Your task to perform on an android device: Open network settings Image 0: 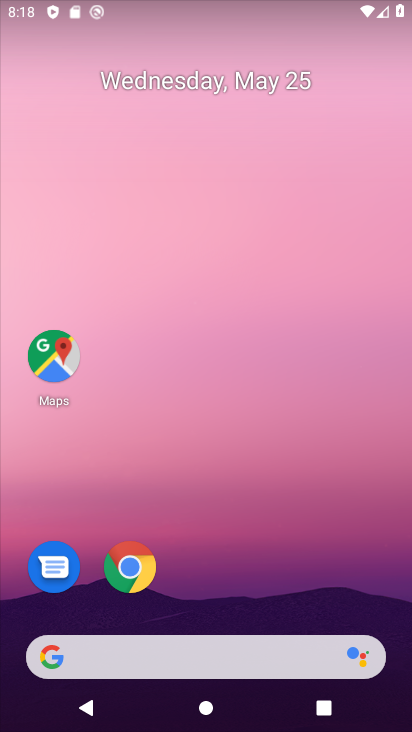
Step 0: drag from (219, 550) to (279, 37)
Your task to perform on an android device: Open network settings Image 1: 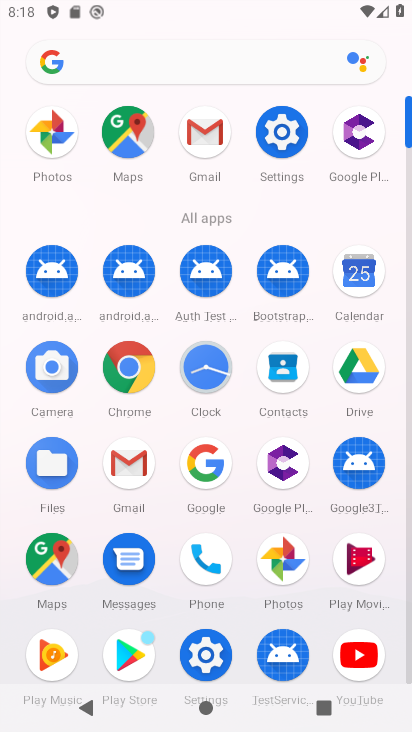
Step 1: click (282, 129)
Your task to perform on an android device: Open network settings Image 2: 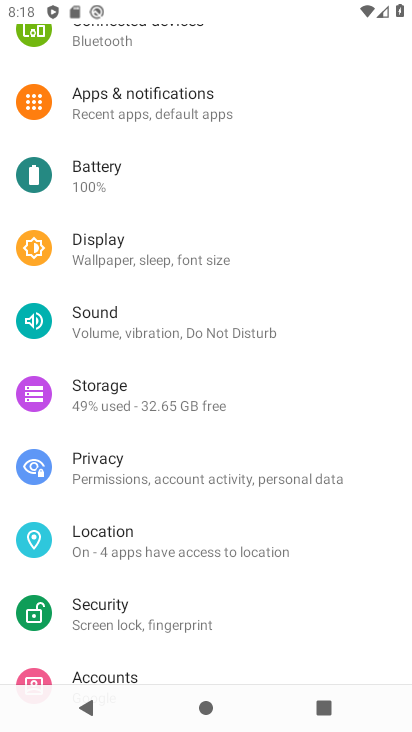
Step 2: drag from (264, 177) to (247, 517)
Your task to perform on an android device: Open network settings Image 3: 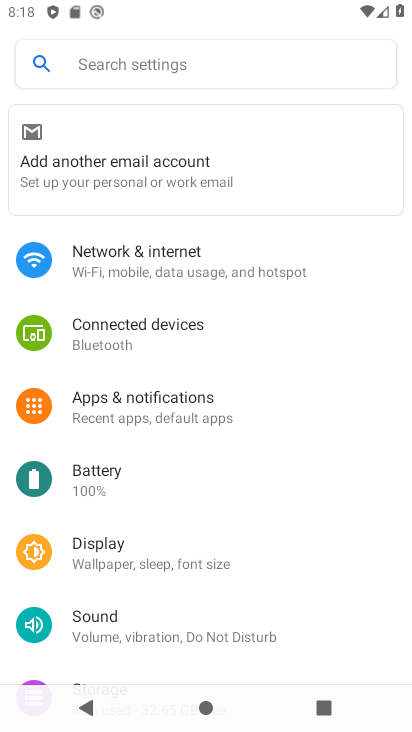
Step 3: click (216, 265)
Your task to perform on an android device: Open network settings Image 4: 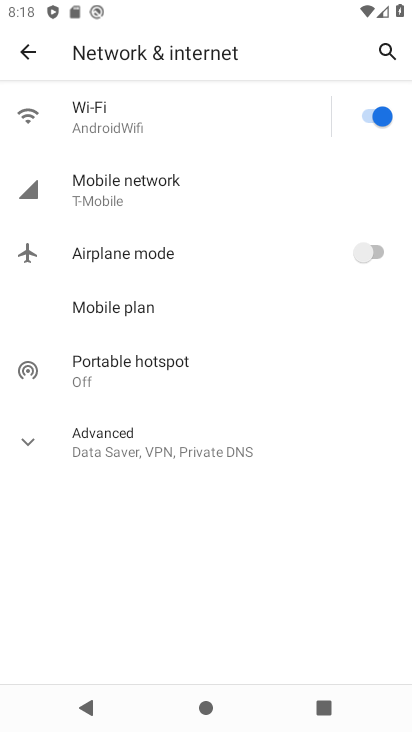
Step 4: task complete